Your task to perform on an android device: Open the phone app and click the voicemail tab. Image 0: 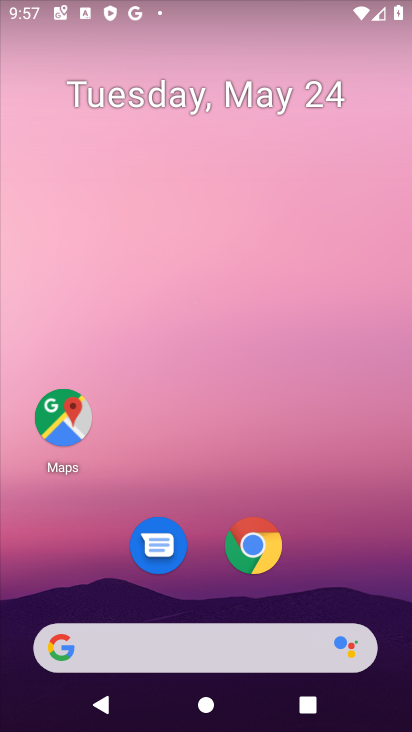
Step 0: drag from (251, 433) to (284, 37)
Your task to perform on an android device: Open the phone app and click the voicemail tab. Image 1: 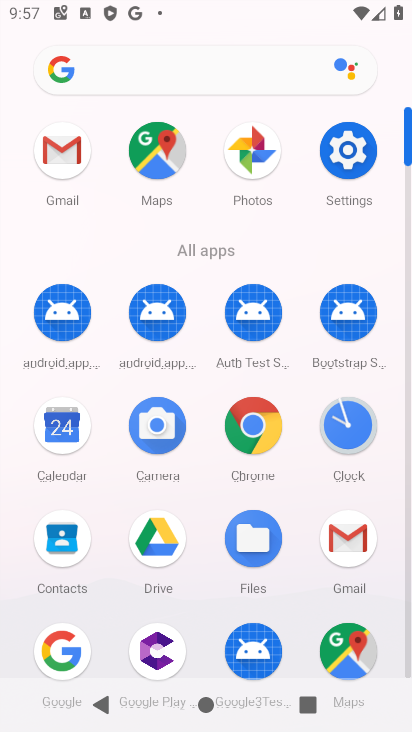
Step 1: drag from (185, 490) to (228, 210)
Your task to perform on an android device: Open the phone app and click the voicemail tab. Image 2: 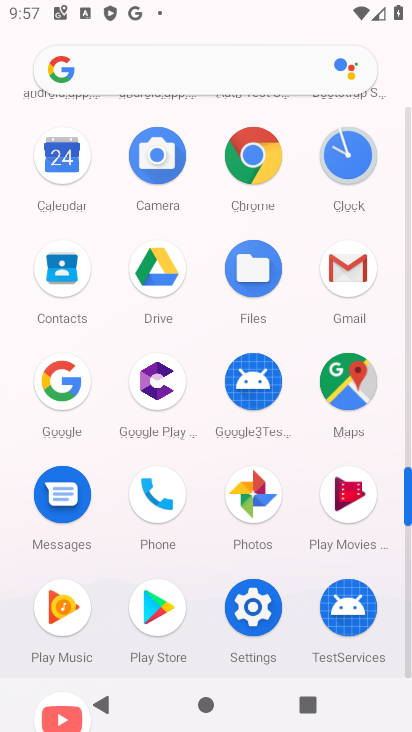
Step 2: click (167, 494)
Your task to perform on an android device: Open the phone app and click the voicemail tab. Image 3: 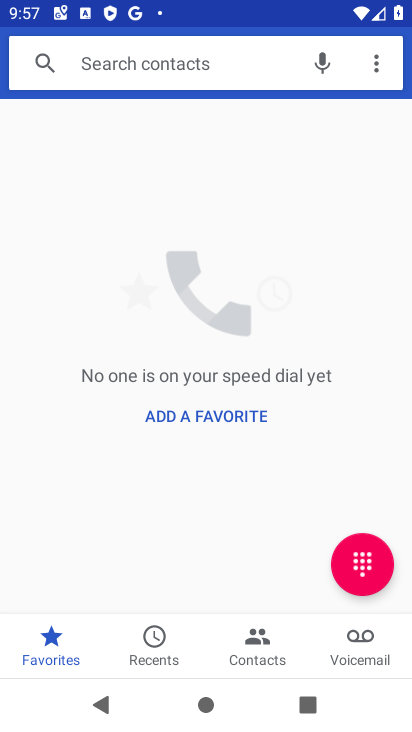
Step 3: click (352, 655)
Your task to perform on an android device: Open the phone app and click the voicemail tab. Image 4: 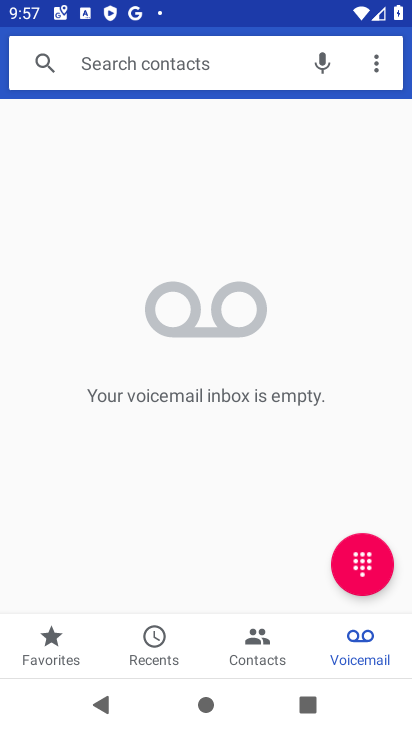
Step 4: task complete